Your task to perform on an android device: open app "Indeed Job Search" Image 0: 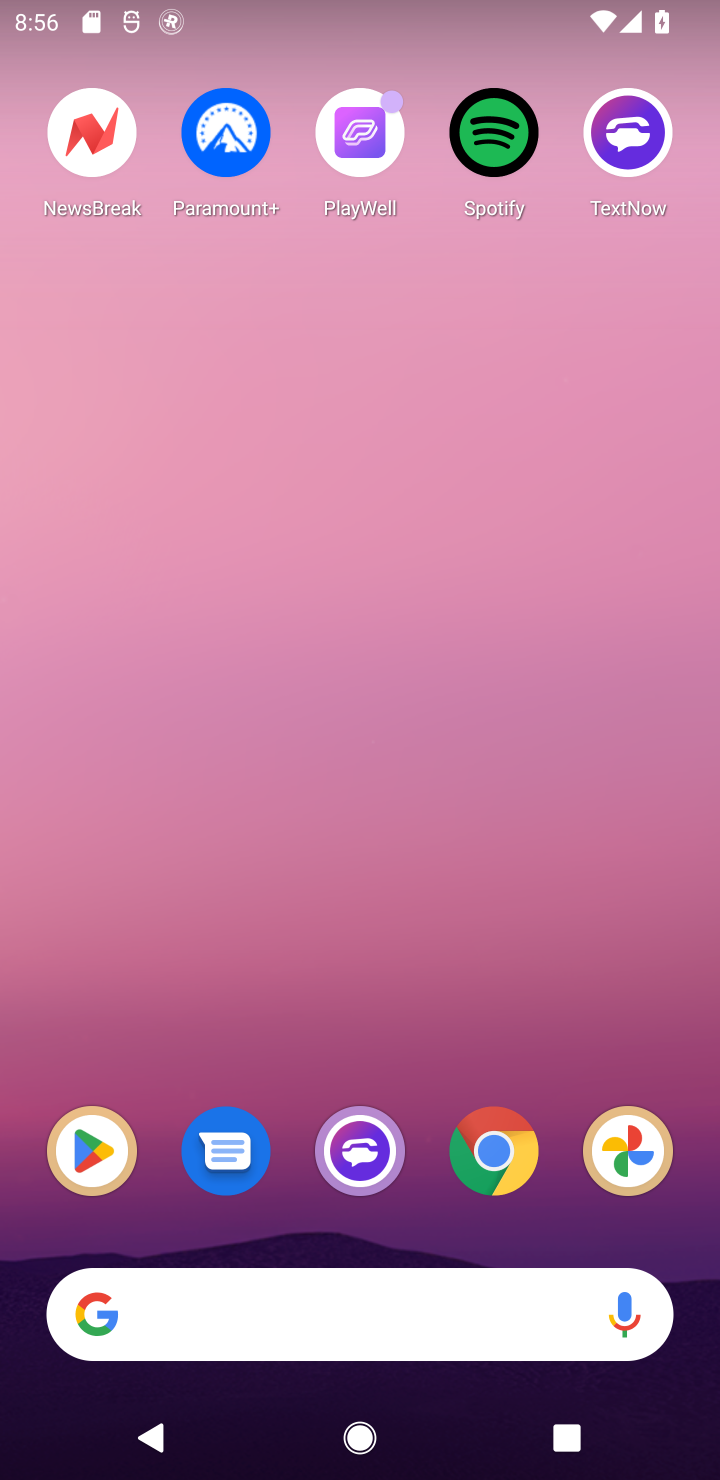
Step 0: click (107, 1135)
Your task to perform on an android device: open app "Indeed Job Search" Image 1: 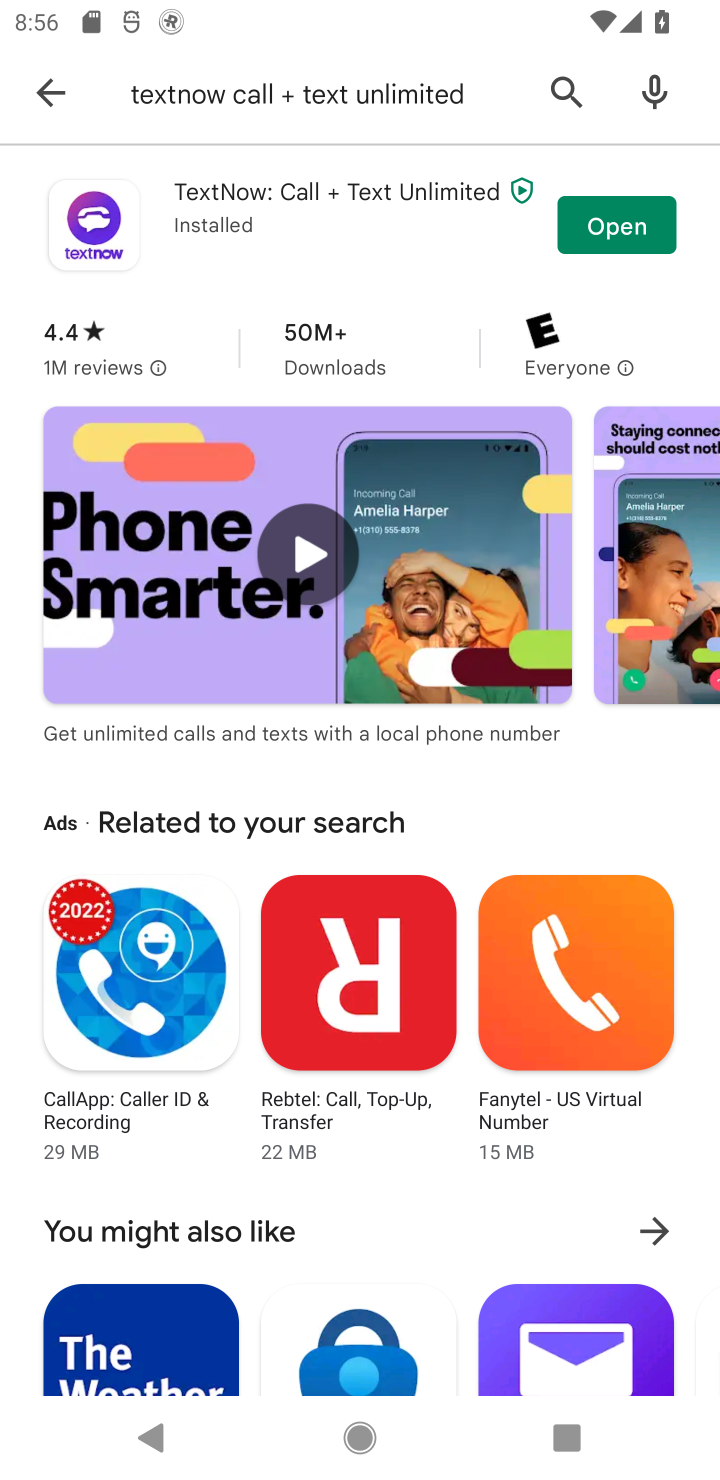
Step 1: click (550, 88)
Your task to perform on an android device: open app "Indeed Job Search" Image 2: 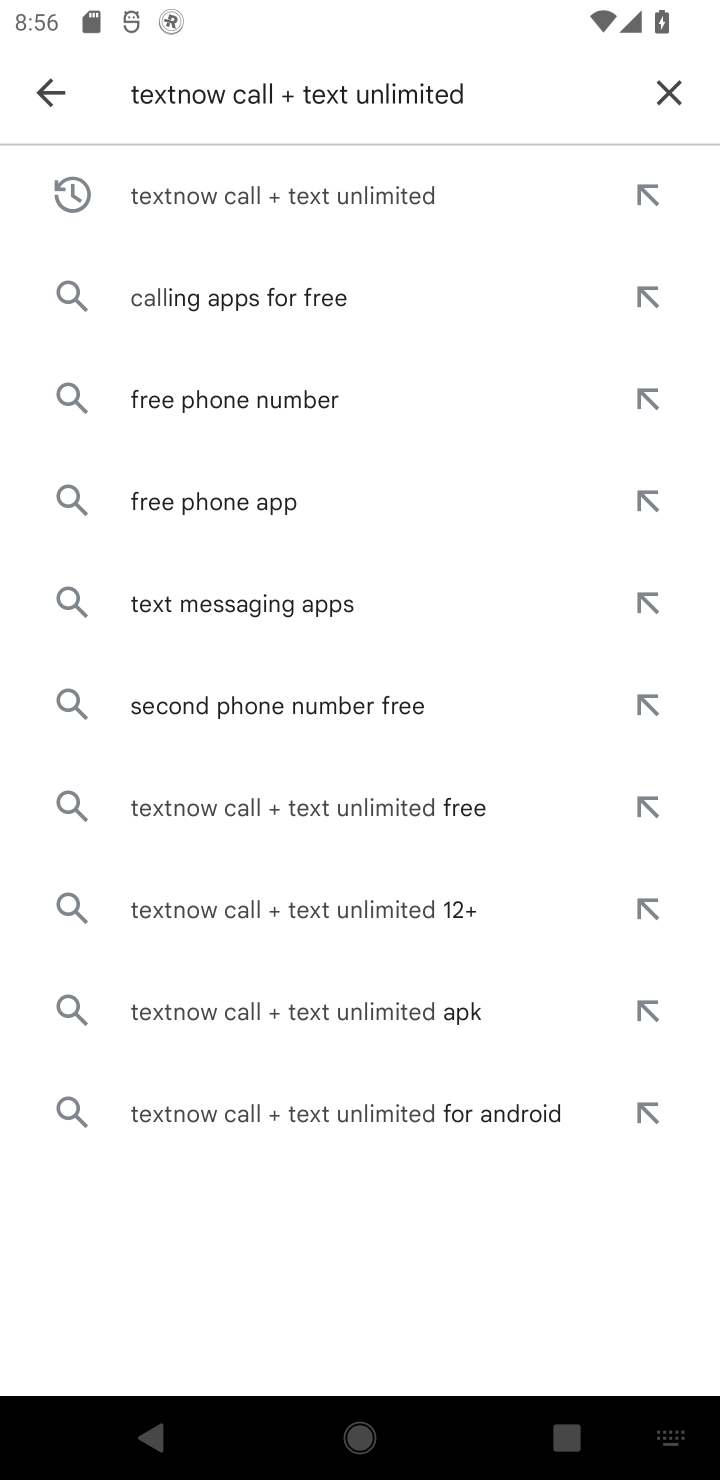
Step 2: click (649, 94)
Your task to perform on an android device: open app "Indeed Job Search" Image 3: 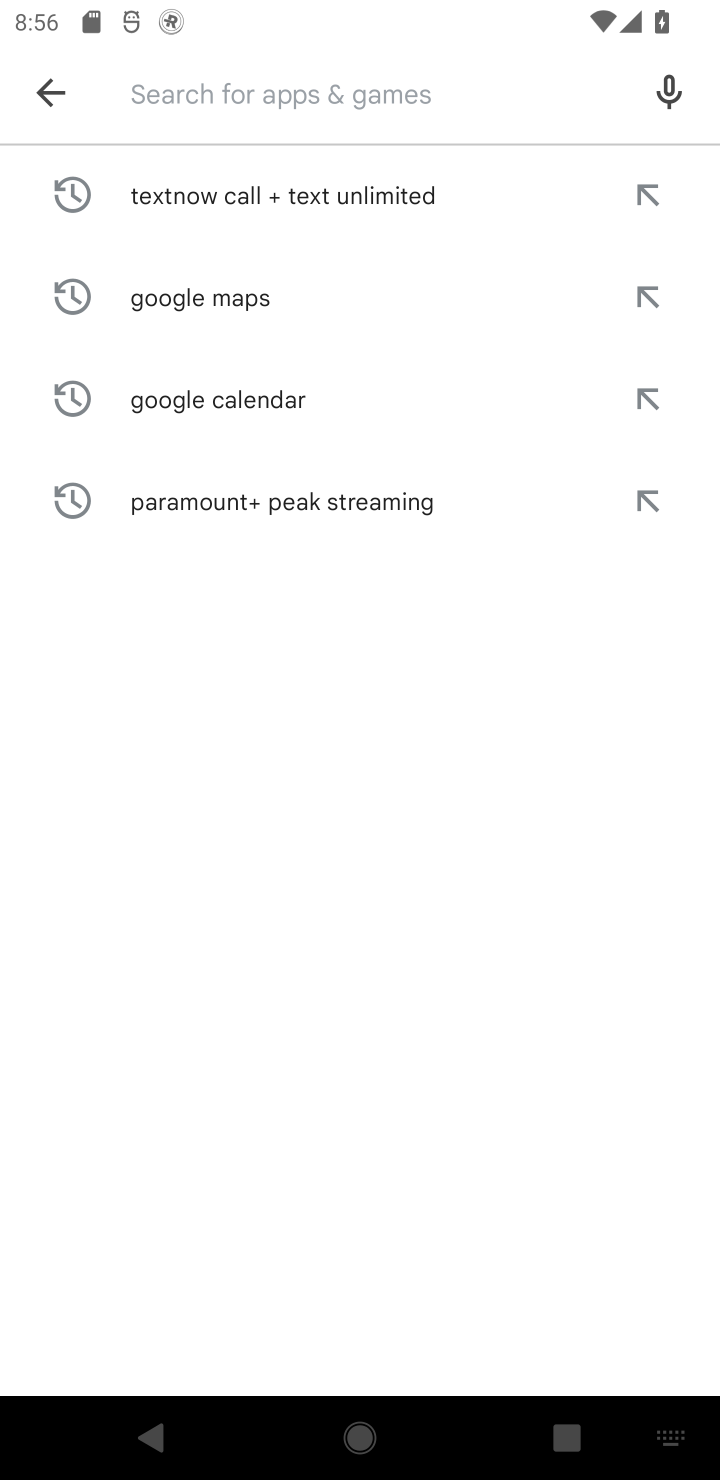
Step 3: type "Indeed Job Searc"
Your task to perform on an android device: open app "Indeed Job Search" Image 4: 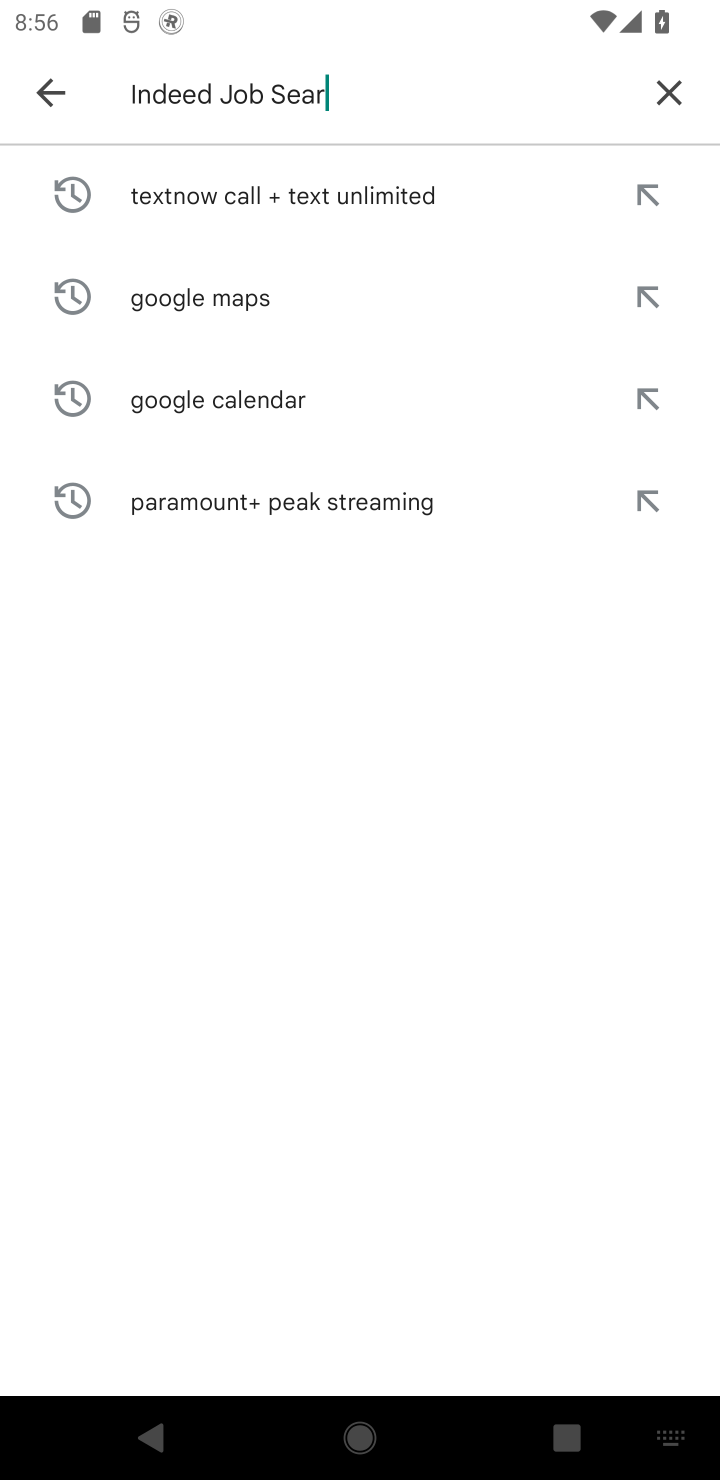
Step 4: type ""
Your task to perform on an android device: open app "Indeed Job Search" Image 5: 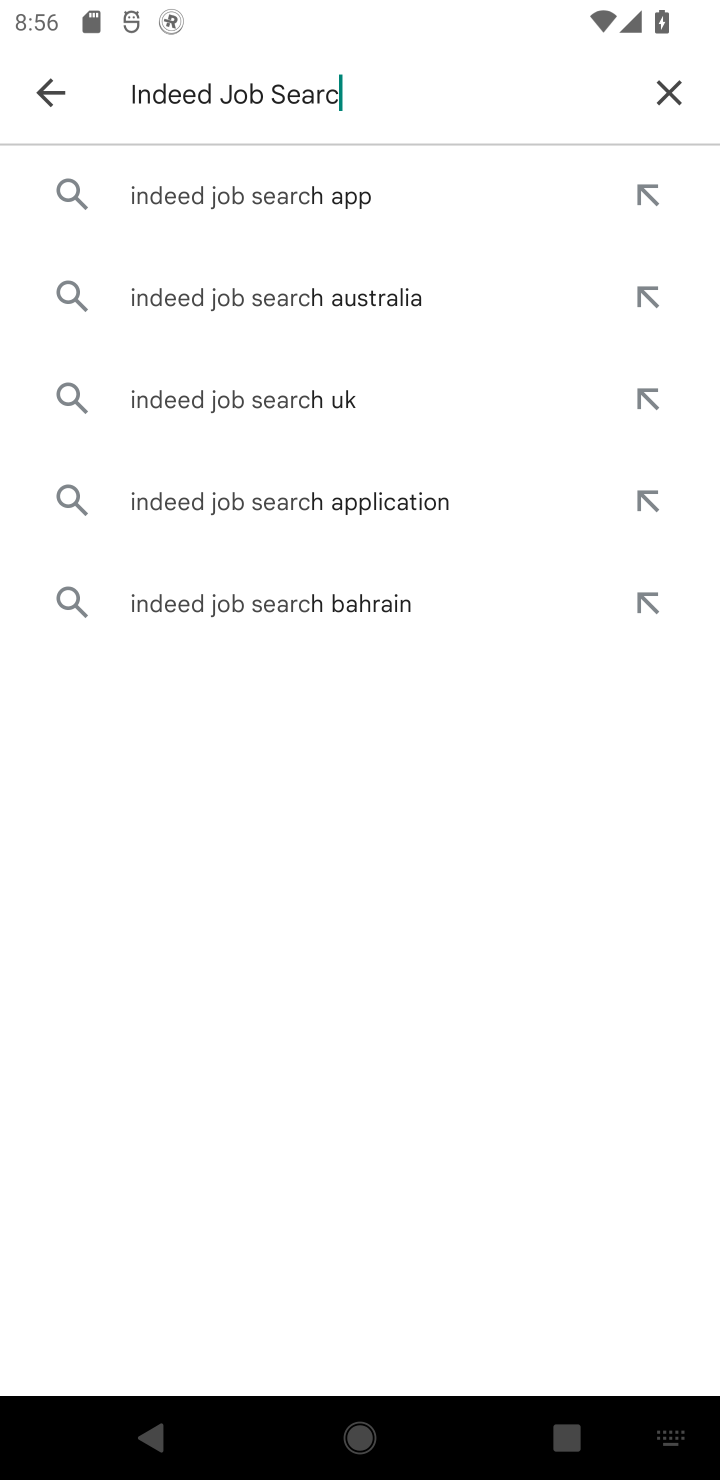
Step 5: click (409, 194)
Your task to perform on an android device: open app "Indeed Job Search" Image 6: 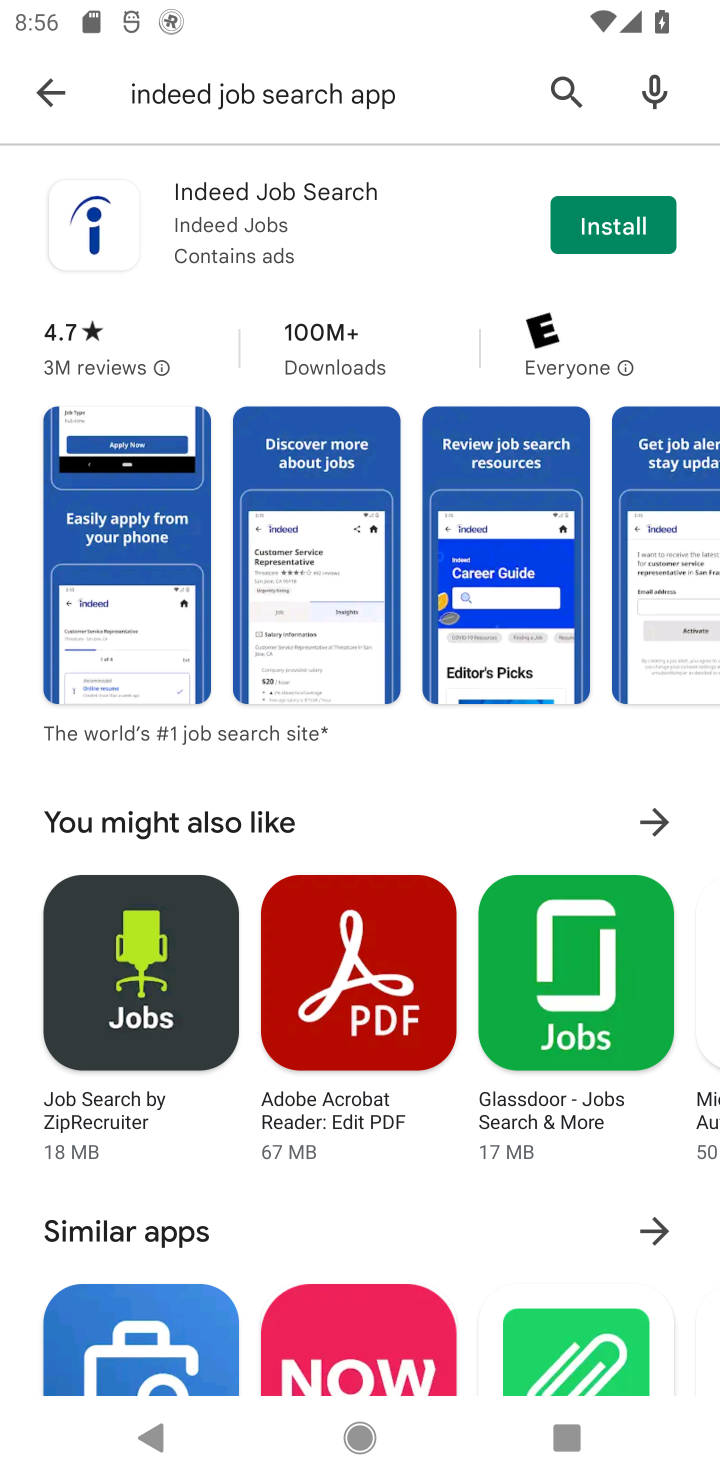
Step 6: task complete